Your task to perform on an android device: Open calendar and show me the third week of next month Image 0: 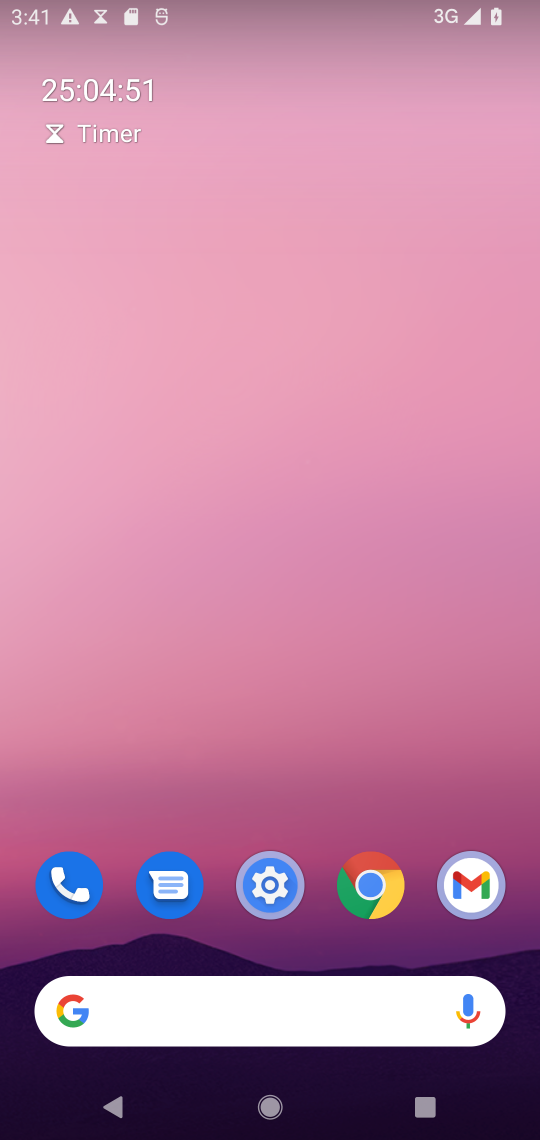
Step 0: press home button
Your task to perform on an android device: Open calendar and show me the third week of next month Image 1: 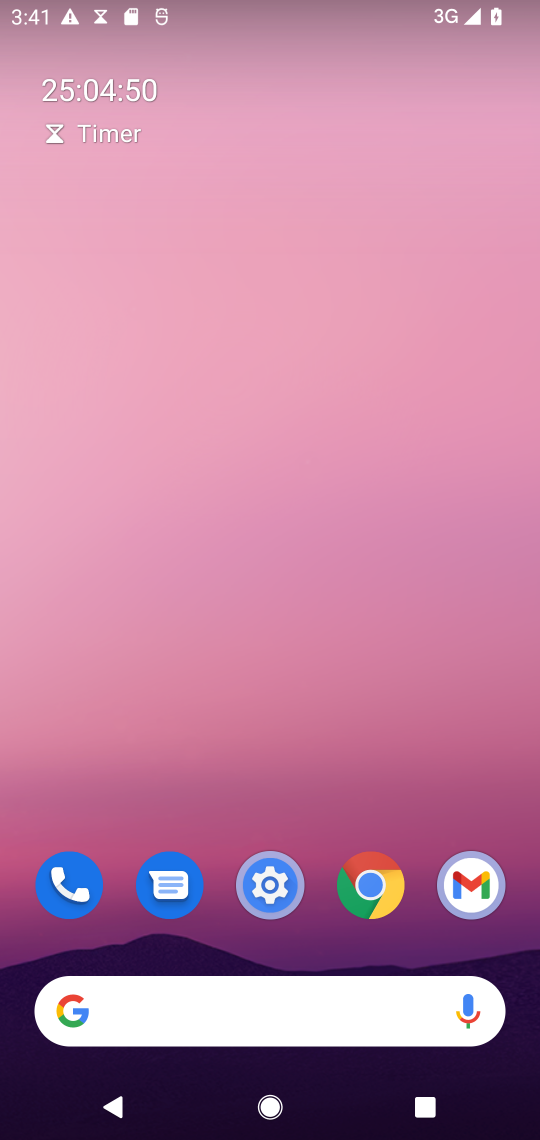
Step 1: drag from (384, 991) to (413, 33)
Your task to perform on an android device: Open calendar and show me the third week of next month Image 2: 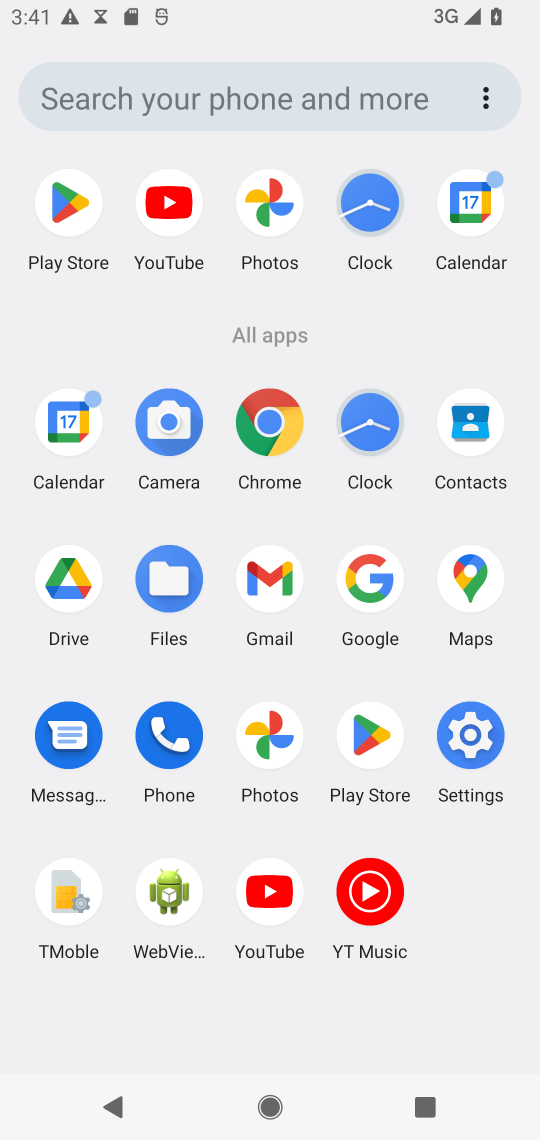
Step 2: click (478, 207)
Your task to perform on an android device: Open calendar and show me the third week of next month Image 3: 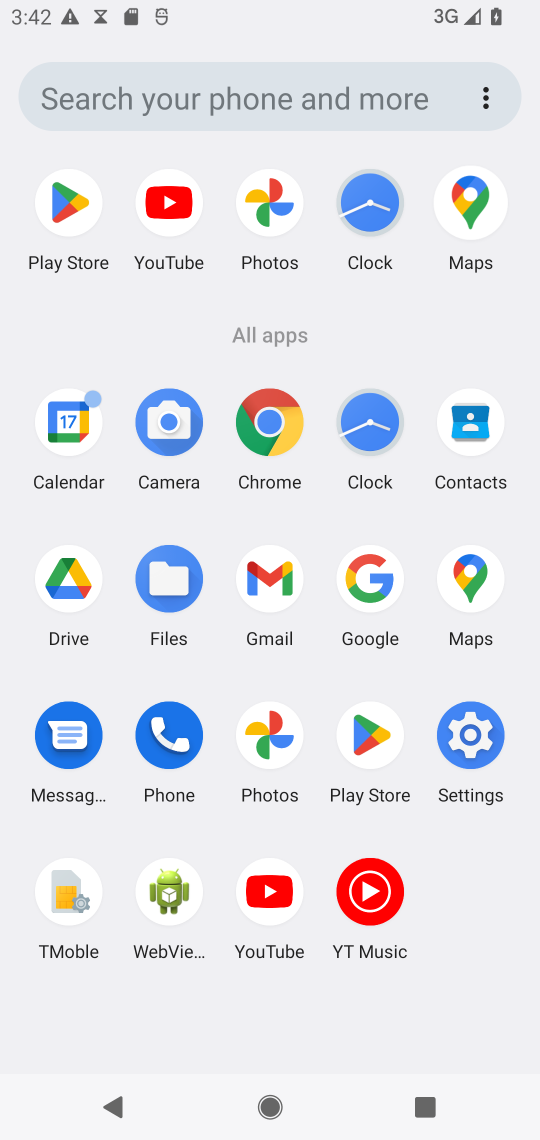
Step 3: click (69, 417)
Your task to perform on an android device: Open calendar and show me the third week of next month Image 4: 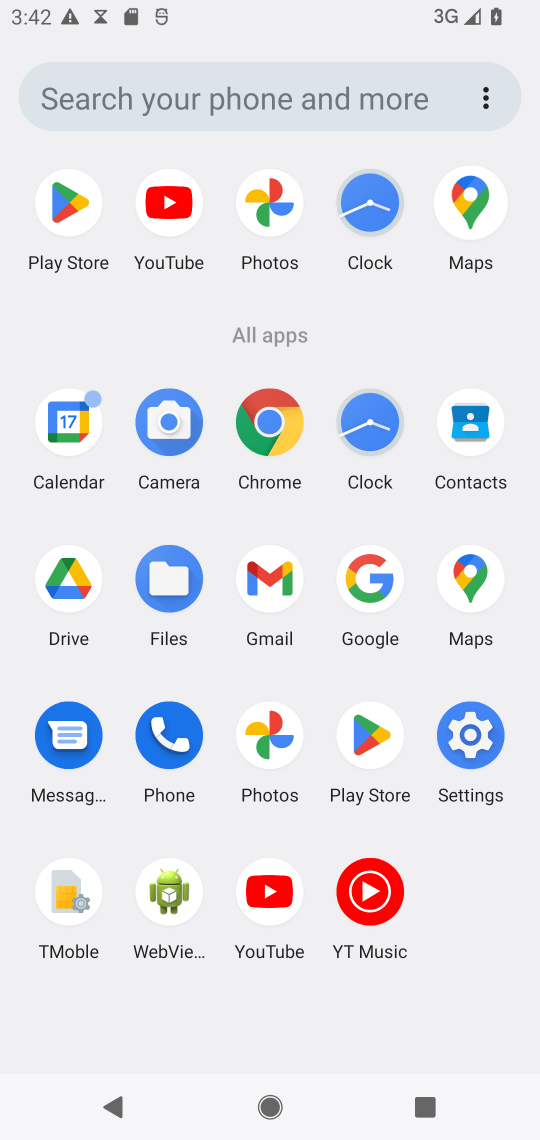
Step 4: click (79, 422)
Your task to perform on an android device: Open calendar and show me the third week of next month Image 5: 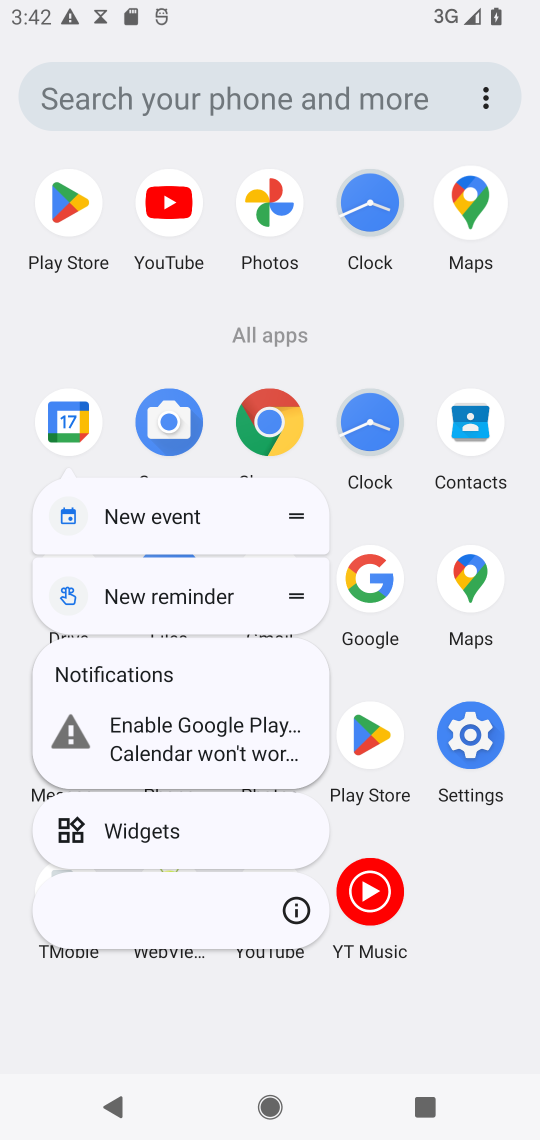
Step 5: click (79, 422)
Your task to perform on an android device: Open calendar and show me the third week of next month Image 6: 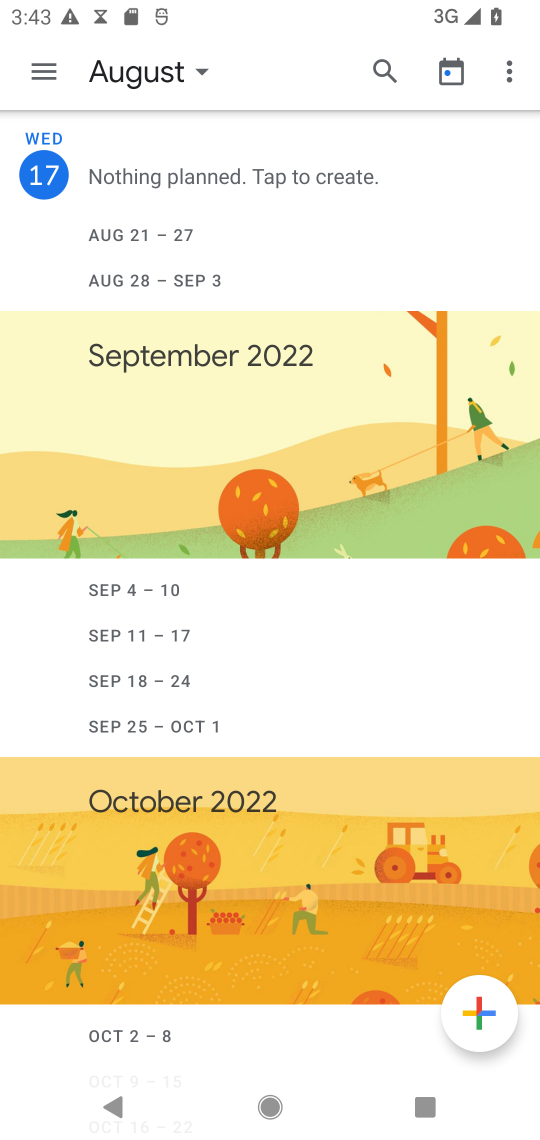
Step 6: click (160, 78)
Your task to perform on an android device: Open calendar and show me the third week of next month Image 7: 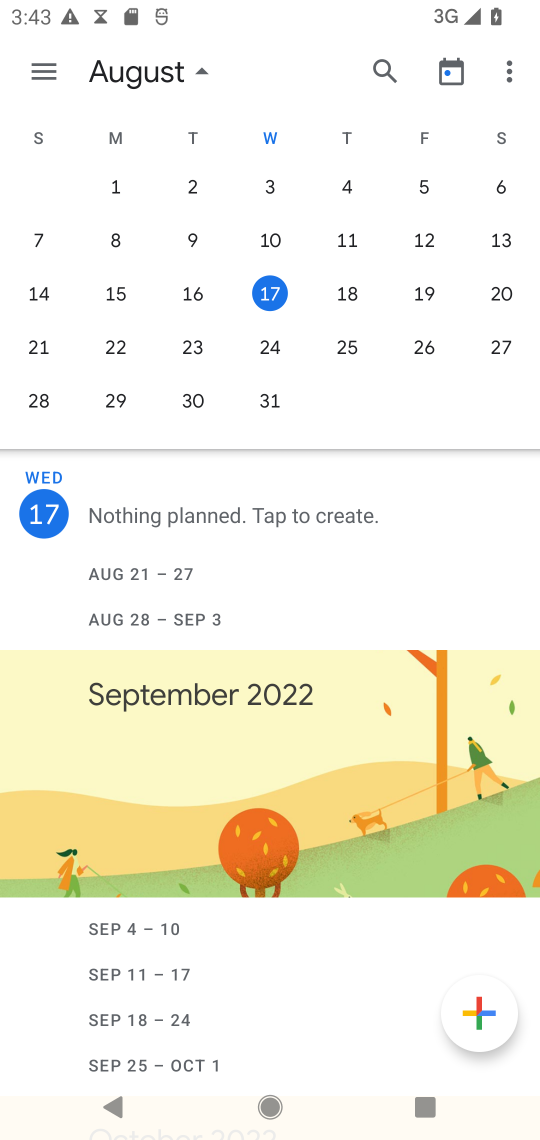
Step 7: drag from (426, 314) to (42, 1026)
Your task to perform on an android device: Open calendar and show me the third week of next month Image 8: 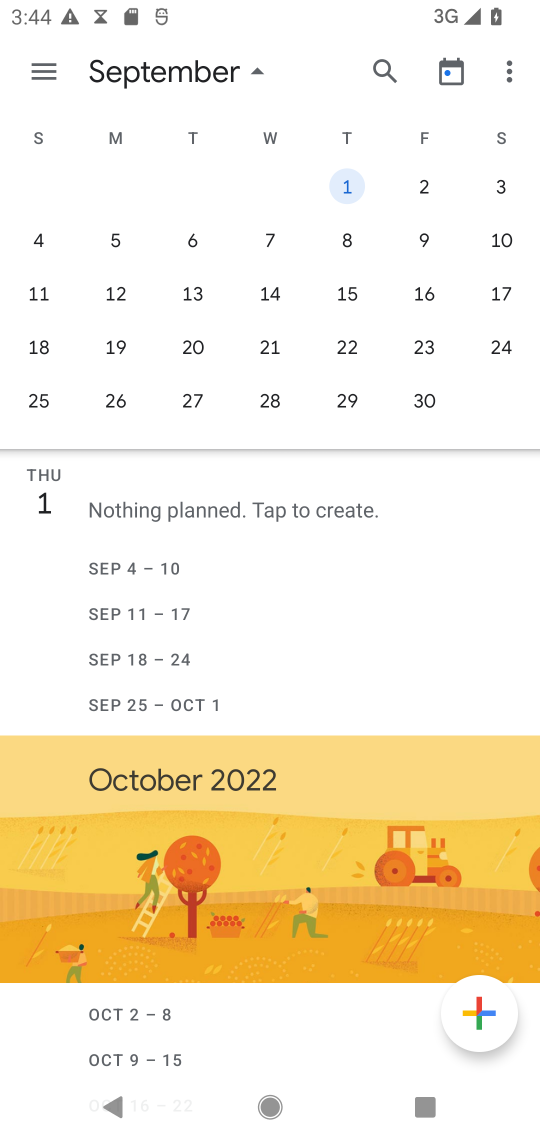
Step 8: drag from (476, 376) to (25, 436)
Your task to perform on an android device: Open calendar and show me the third week of next month Image 9: 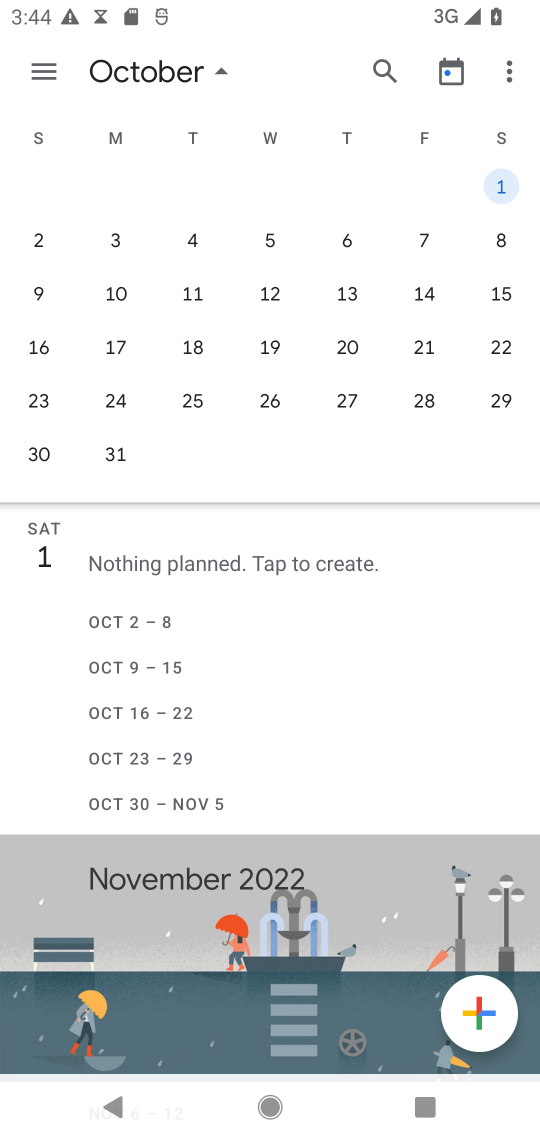
Step 9: click (409, 357)
Your task to perform on an android device: Open calendar and show me the third week of next month Image 10: 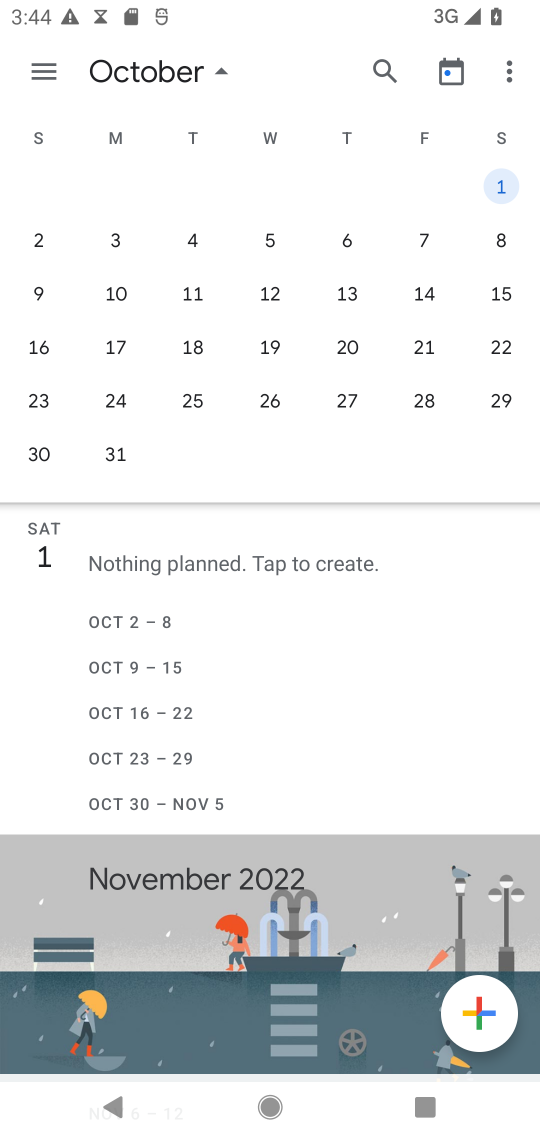
Step 10: click (421, 349)
Your task to perform on an android device: Open calendar and show me the third week of next month Image 11: 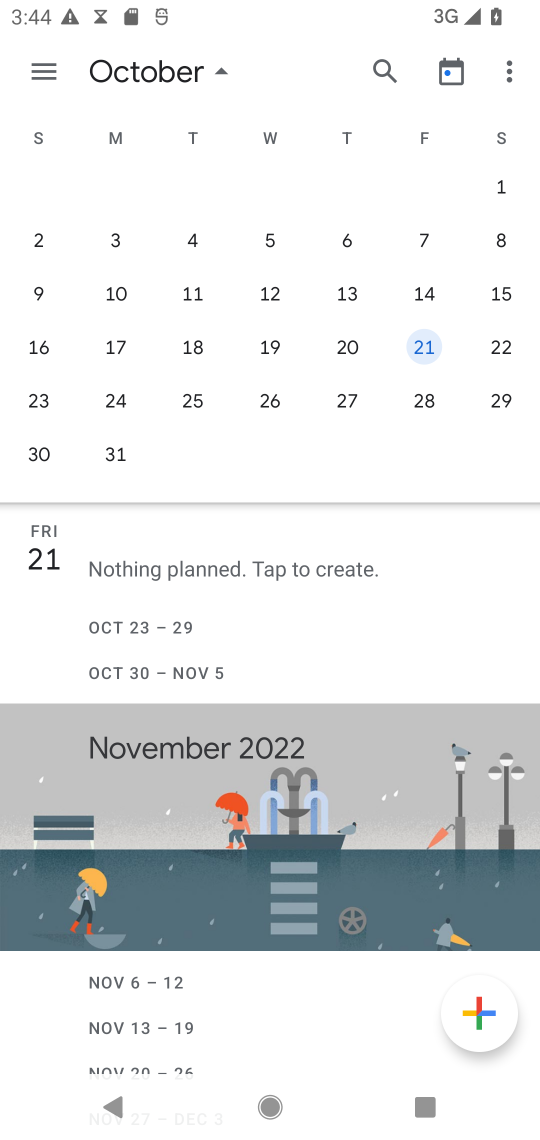
Step 11: task complete